Your task to perform on an android device: Open display settings Image 0: 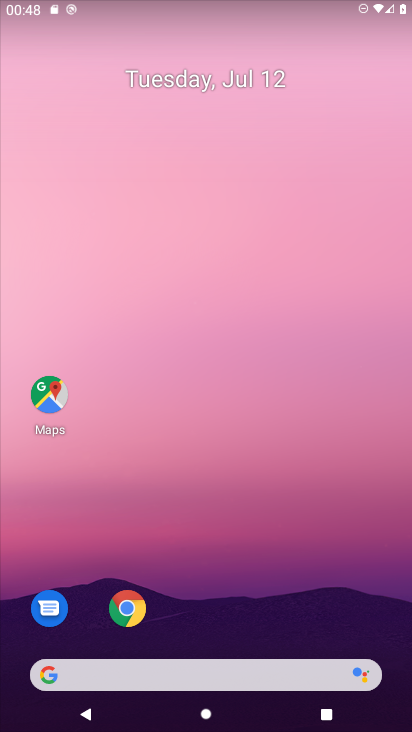
Step 0: drag from (216, 628) to (200, 10)
Your task to perform on an android device: Open display settings Image 1: 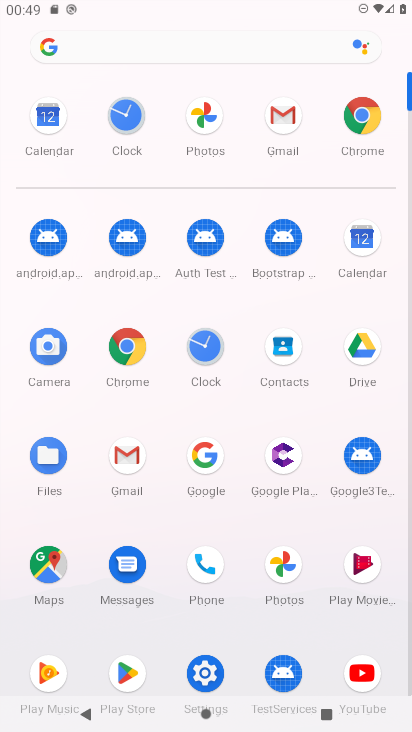
Step 1: click (212, 656)
Your task to perform on an android device: Open display settings Image 2: 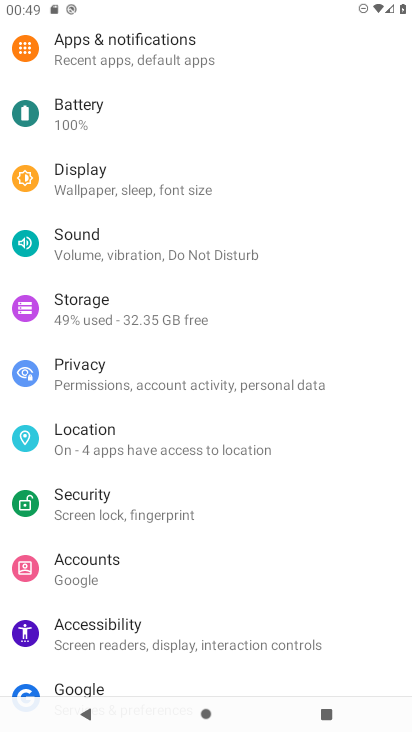
Step 2: click (67, 173)
Your task to perform on an android device: Open display settings Image 3: 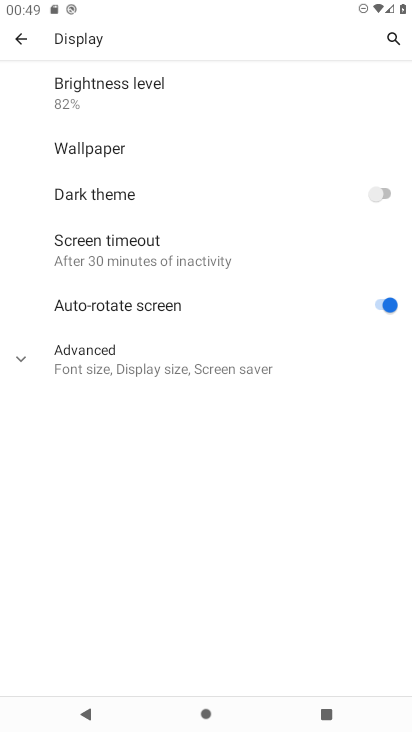
Step 3: task complete